Your task to perform on an android device: delete the emails in spam in the gmail app Image 0: 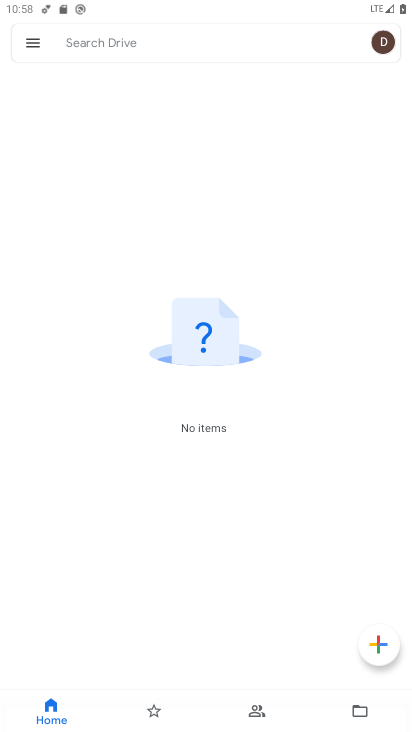
Step 0: press home button
Your task to perform on an android device: delete the emails in spam in the gmail app Image 1: 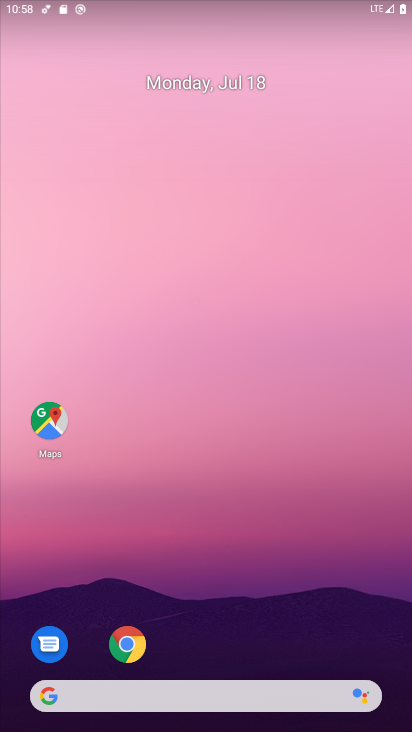
Step 1: drag from (347, 611) to (366, 130)
Your task to perform on an android device: delete the emails in spam in the gmail app Image 2: 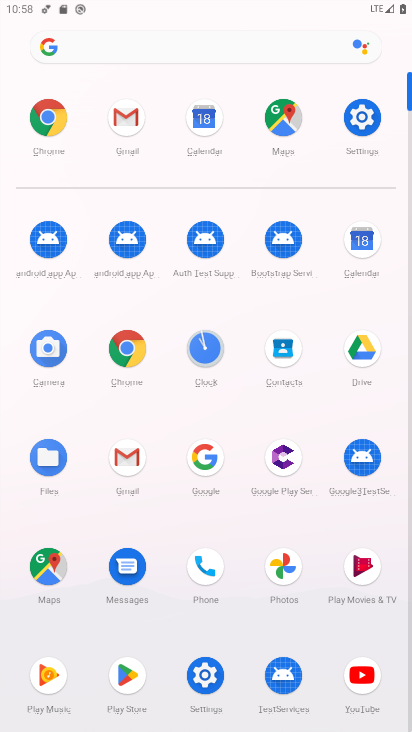
Step 2: click (129, 466)
Your task to perform on an android device: delete the emails in spam in the gmail app Image 3: 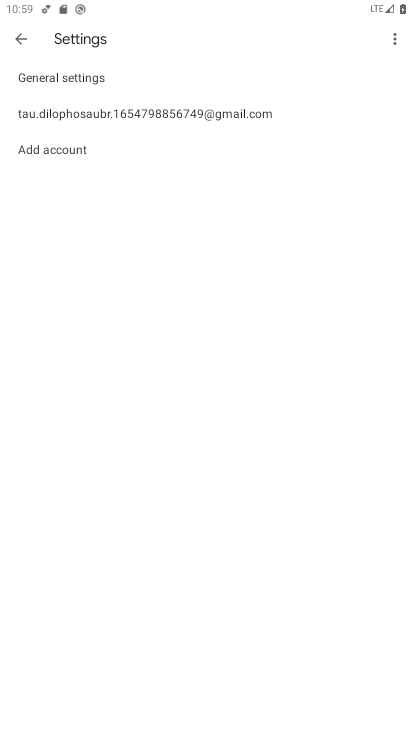
Step 3: press back button
Your task to perform on an android device: delete the emails in spam in the gmail app Image 4: 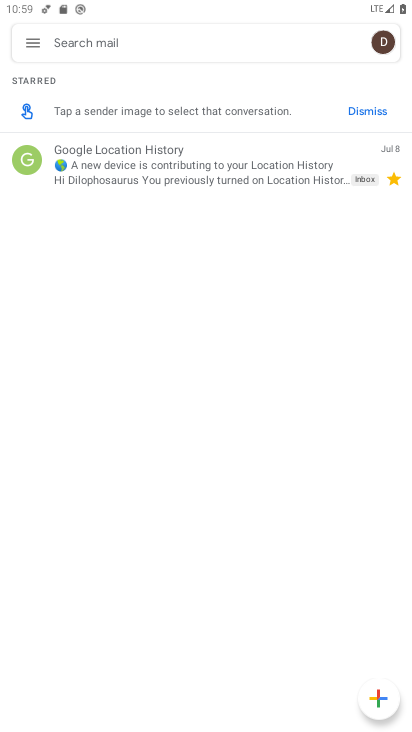
Step 4: click (34, 53)
Your task to perform on an android device: delete the emails in spam in the gmail app Image 5: 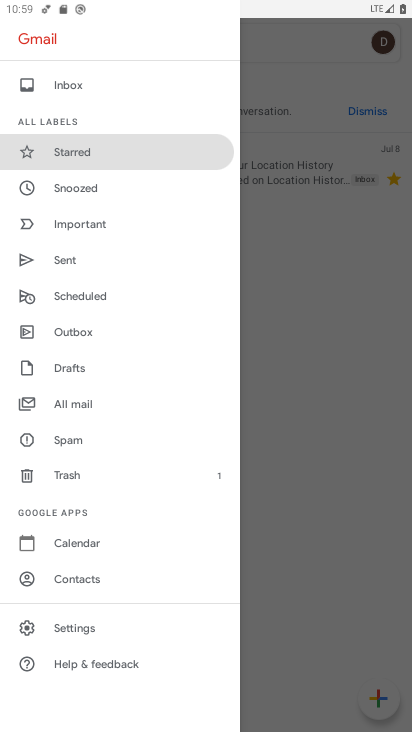
Step 5: click (122, 436)
Your task to perform on an android device: delete the emails in spam in the gmail app Image 6: 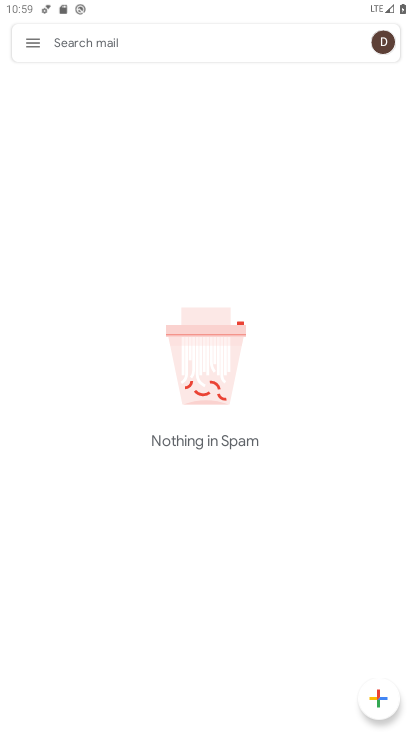
Step 6: task complete